Your task to perform on an android device: check data usage Image 0: 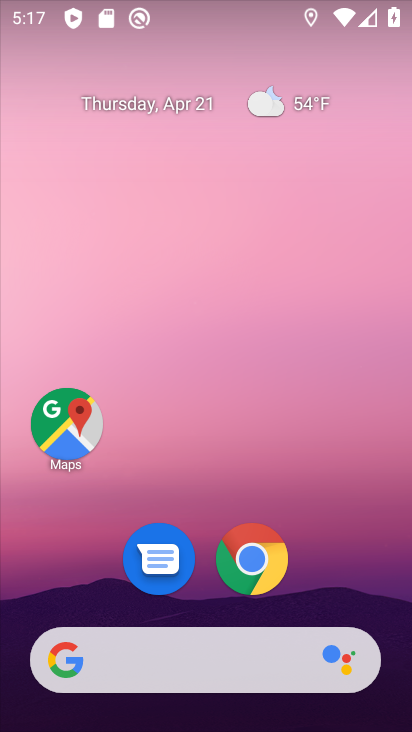
Step 0: drag from (351, 560) to (320, 1)
Your task to perform on an android device: check data usage Image 1: 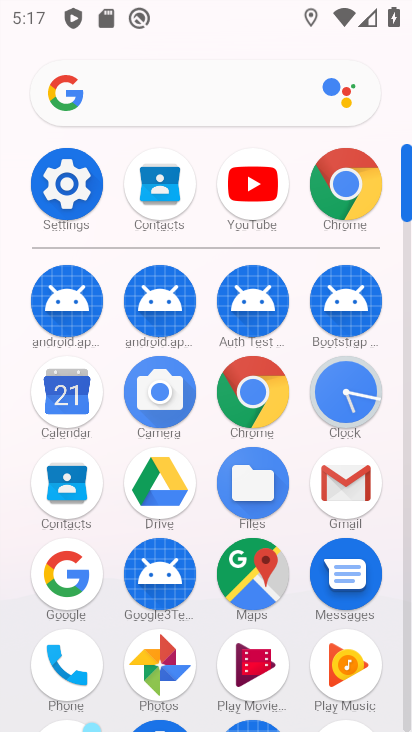
Step 1: click (84, 193)
Your task to perform on an android device: check data usage Image 2: 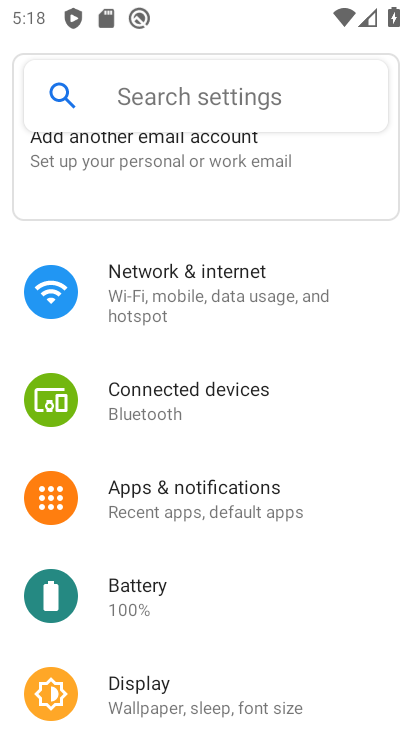
Step 2: drag from (191, 550) to (202, 222)
Your task to perform on an android device: check data usage Image 3: 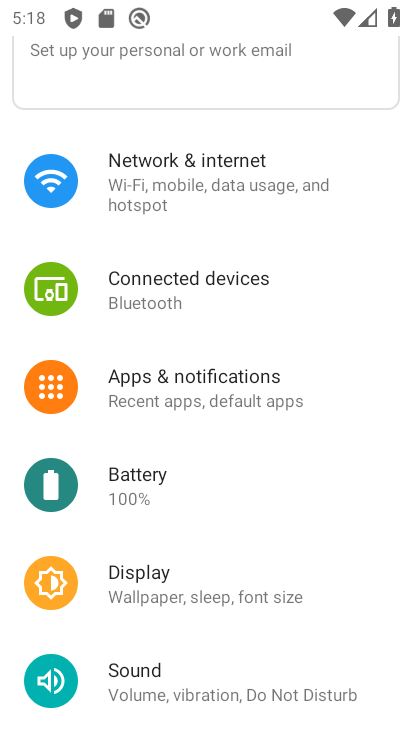
Step 3: click (185, 171)
Your task to perform on an android device: check data usage Image 4: 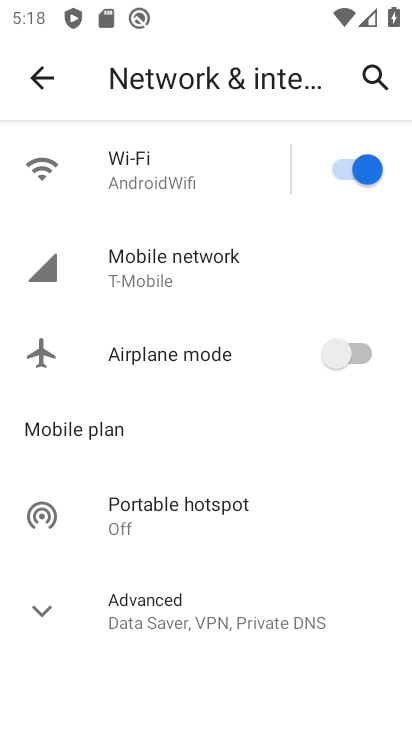
Step 4: click (144, 277)
Your task to perform on an android device: check data usage Image 5: 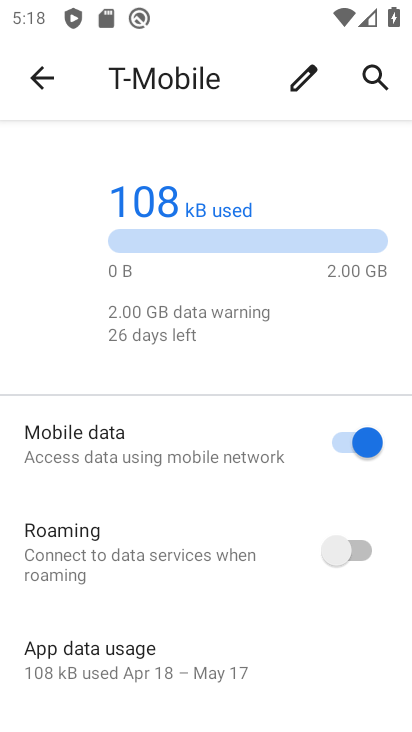
Step 5: task complete